Your task to perform on an android device: Open accessibility settings Image 0: 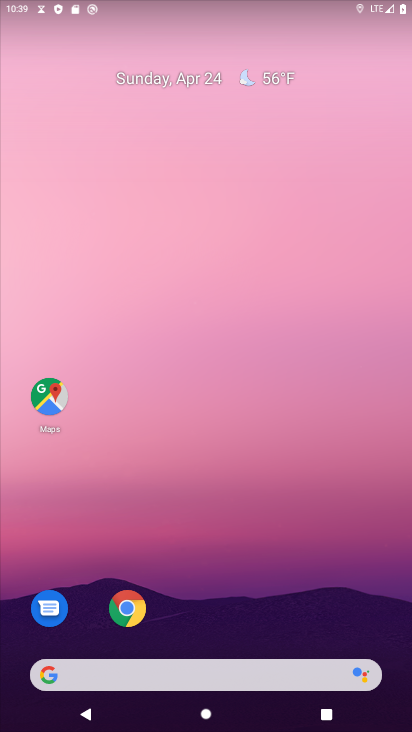
Step 0: drag from (202, 632) to (296, 1)
Your task to perform on an android device: Open accessibility settings Image 1: 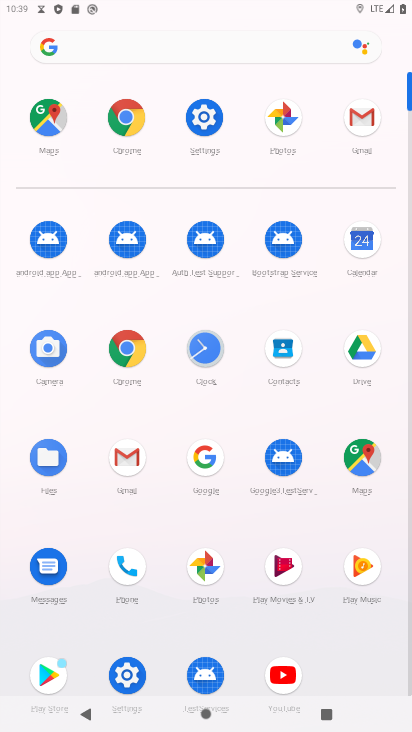
Step 1: click (205, 106)
Your task to perform on an android device: Open accessibility settings Image 2: 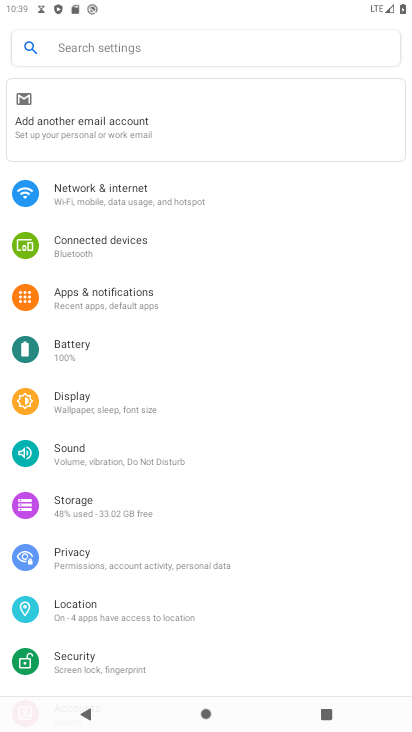
Step 2: drag from (120, 517) to (110, 130)
Your task to perform on an android device: Open accessibility settings Image 3: 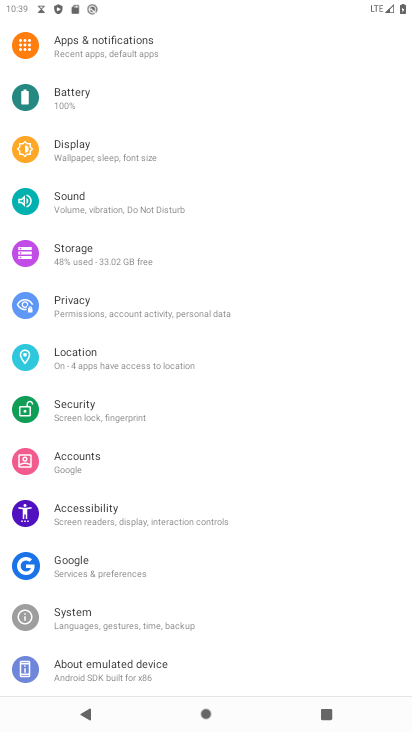
Step 3: click (110, 499)
Your task to perform on an android device: Open accessibility settings Image 4: 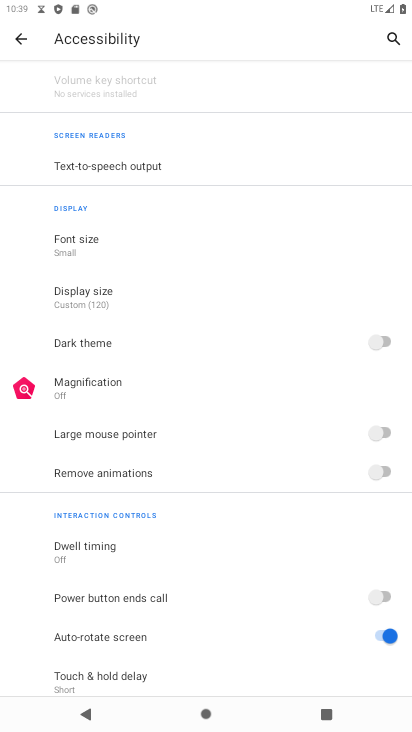
Step 4: task complete